Your task to perform on an android device: open app "Clock" (install if not already installed) Image 0: 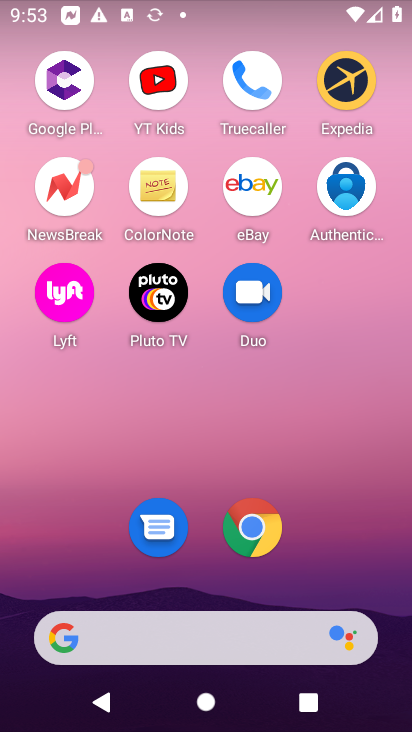
Step 0: drag from (208, 568) to (224, 358)
Your task to perform on an android device: open app "Clock" (install if not already installed) Image 1: 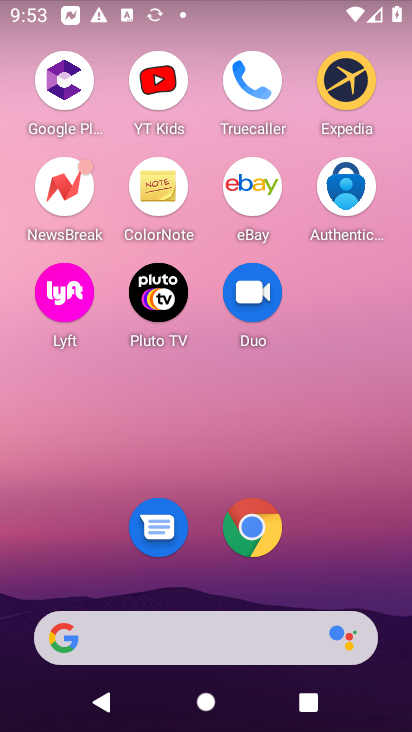
Step 1: drag from (210, 561) to (217, 506)
Your task to perform on an android device: open app "Clock" (install if not already installed) Image 2: 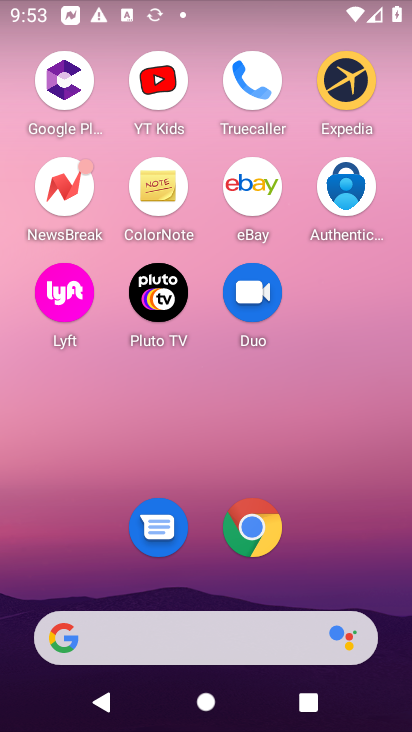
Step 2: drag from (193, 599) to (237, 31)
Your task to perform on an android device: open app "Clock" (install if not already installed) Image 3: 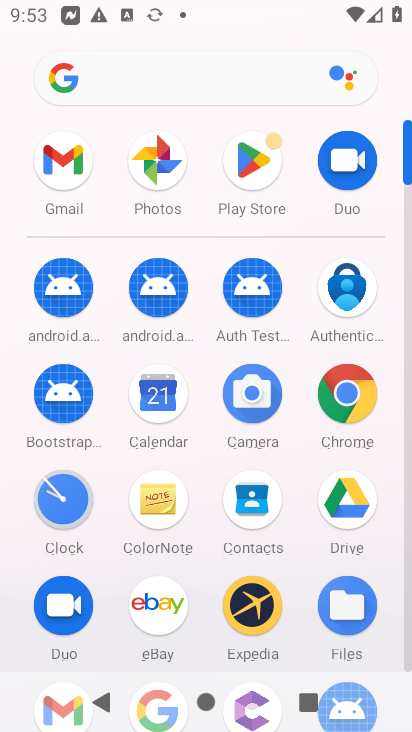
Step 3: click (74, 499)
Your task to perform on an android device: open app "Clock" (install if not already installed) Image 4: 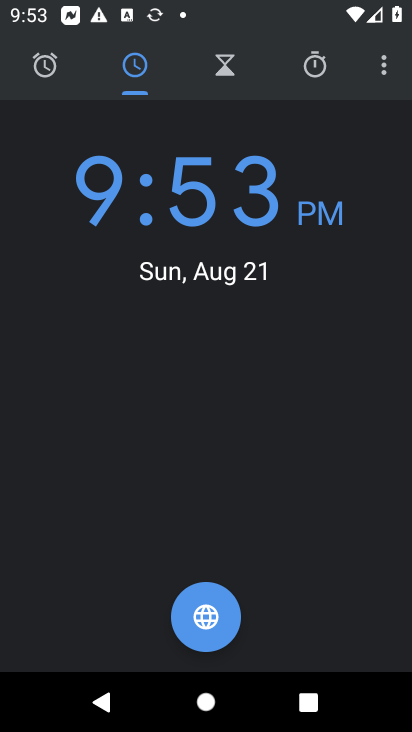
Step 4: task complete